Your task to perform on an android device: toggle improve location accuracy Image 0: 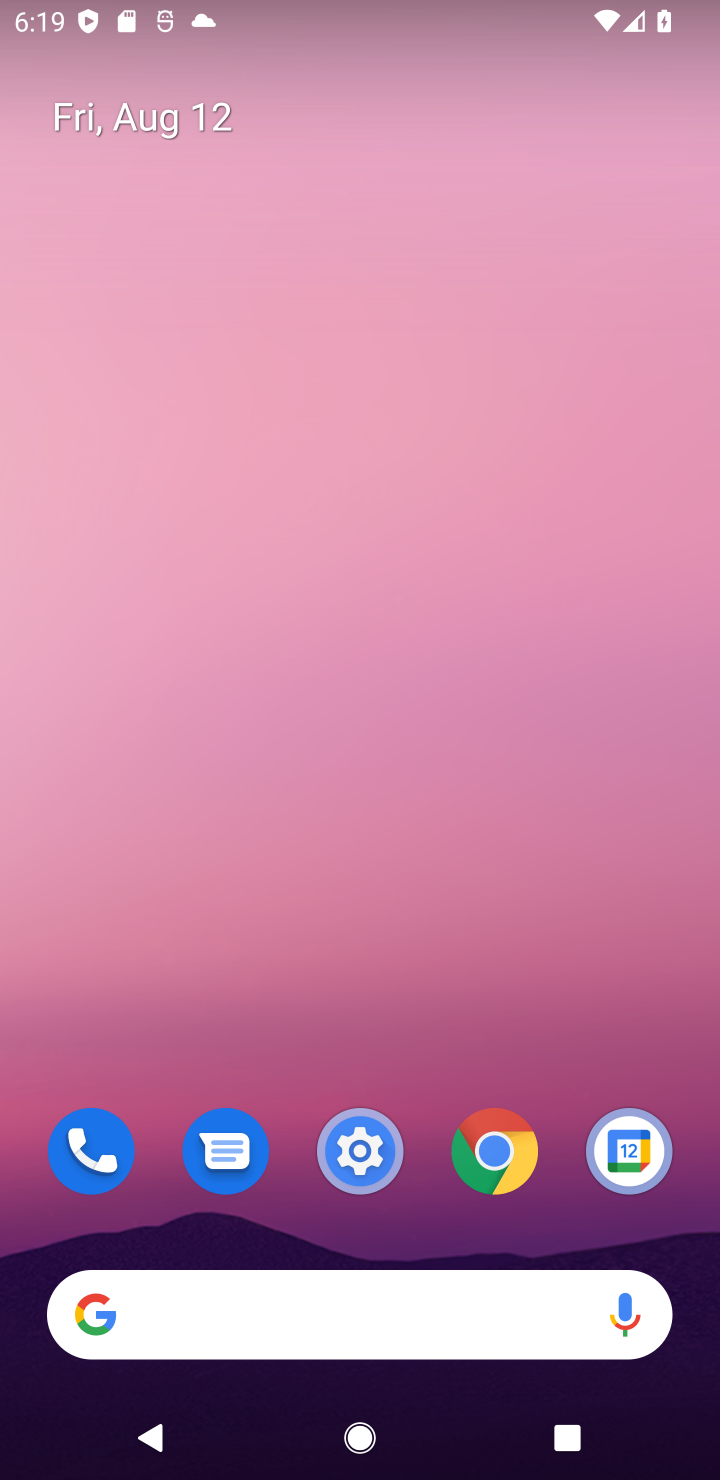
Step 0: drag from (542, 954) to (509, 87)
Your task to perform on an android device: toggle improve location accuracy Image 1: 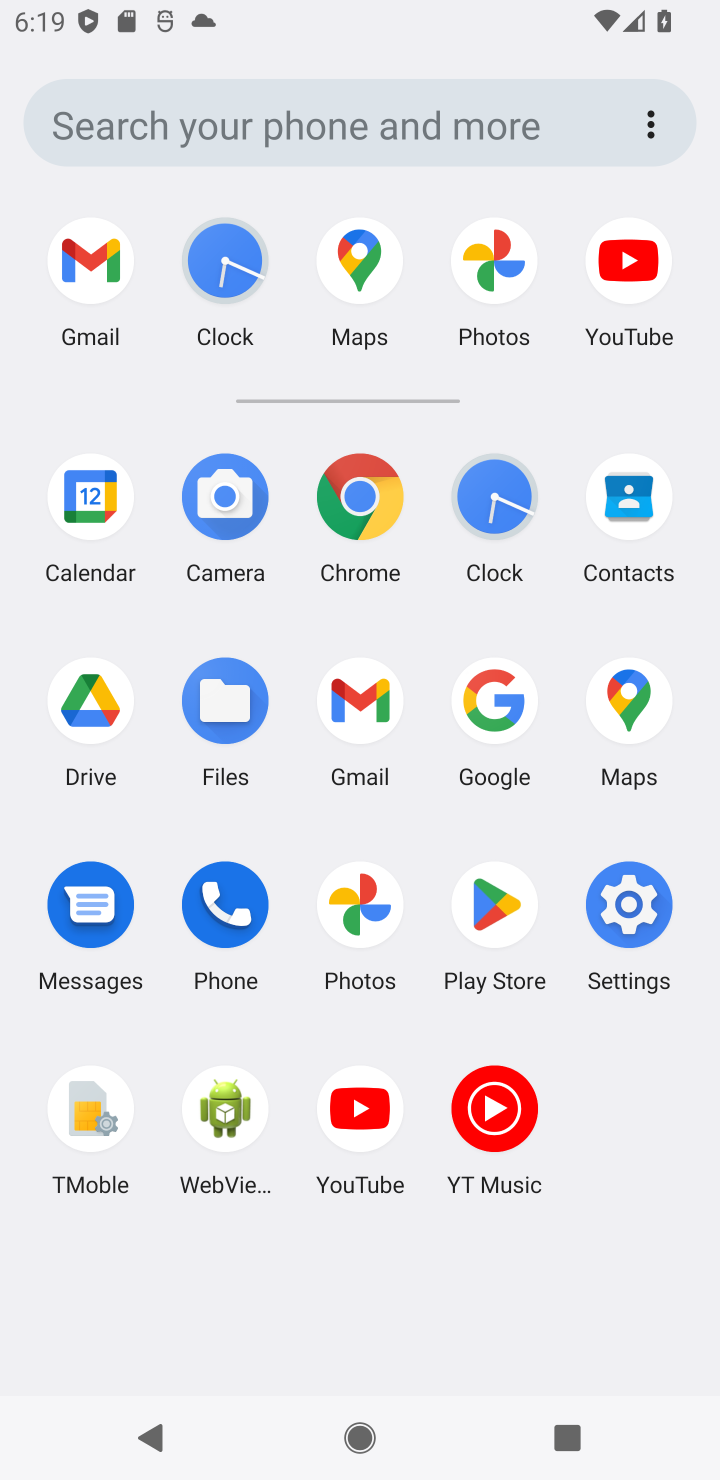
Step 1: click (622, 904)
Your task to perform on an android device: toggle improve location accuracy Image 2: 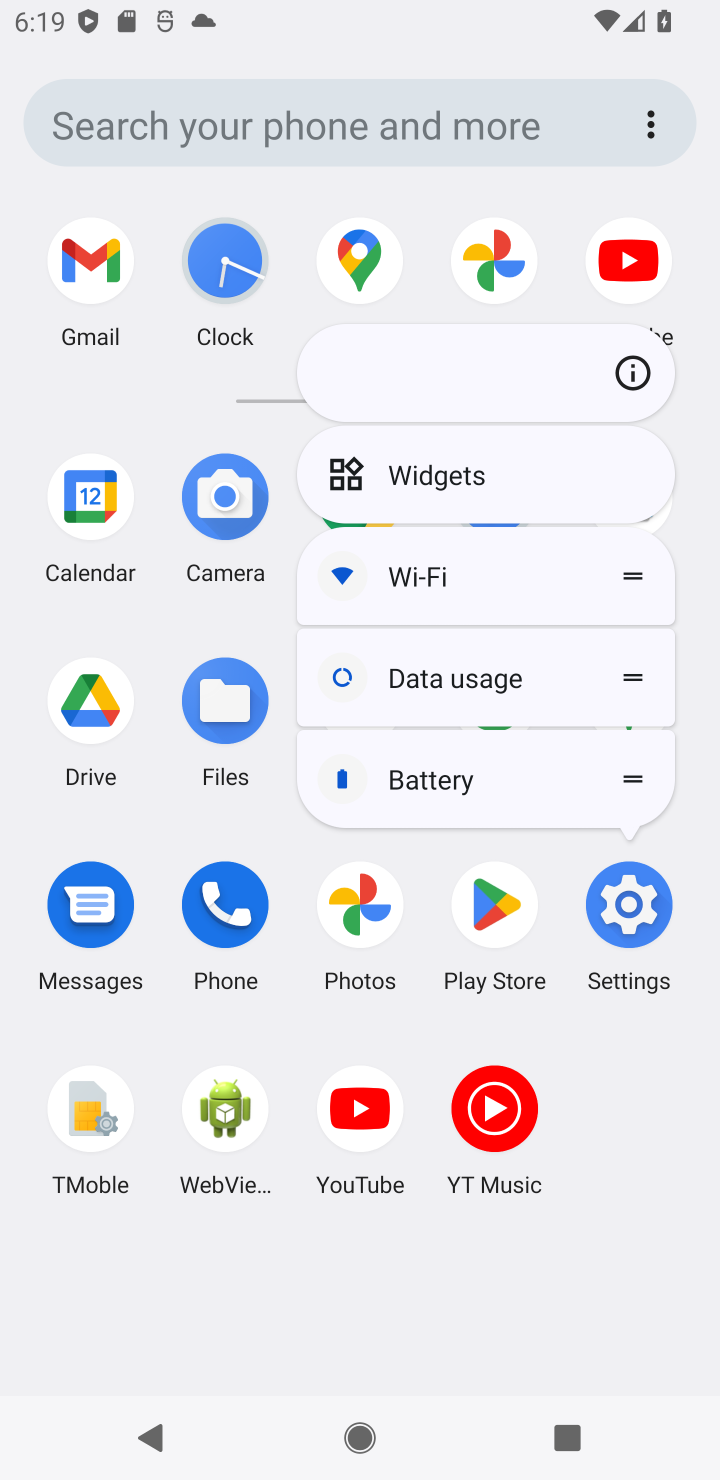
Step 2: click (637, 904)
Your task to perform on an android device: toggle improve location accuracy Image 3: 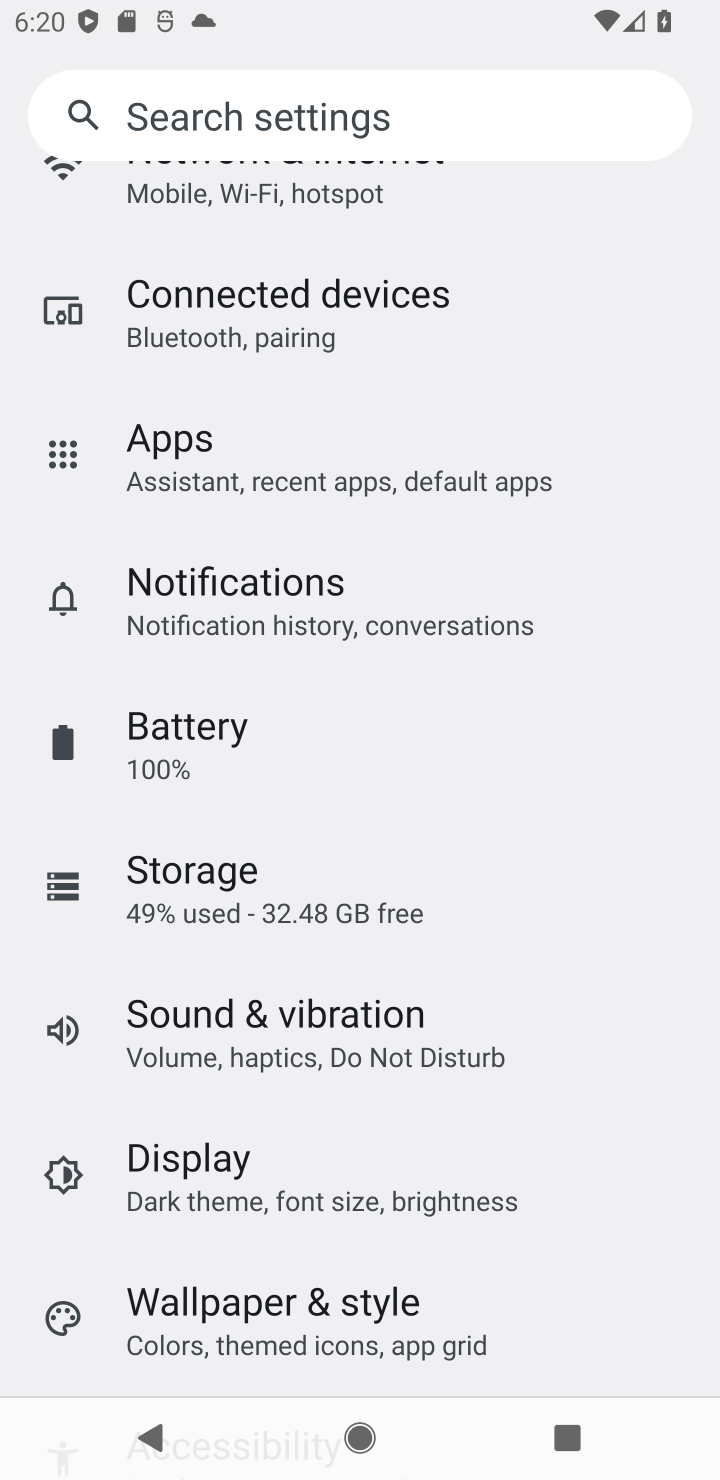
Step 3: drag from (580, 924) to (613, 312)
Your task to perform on an android device: toggle improve location accuracy Image 4: 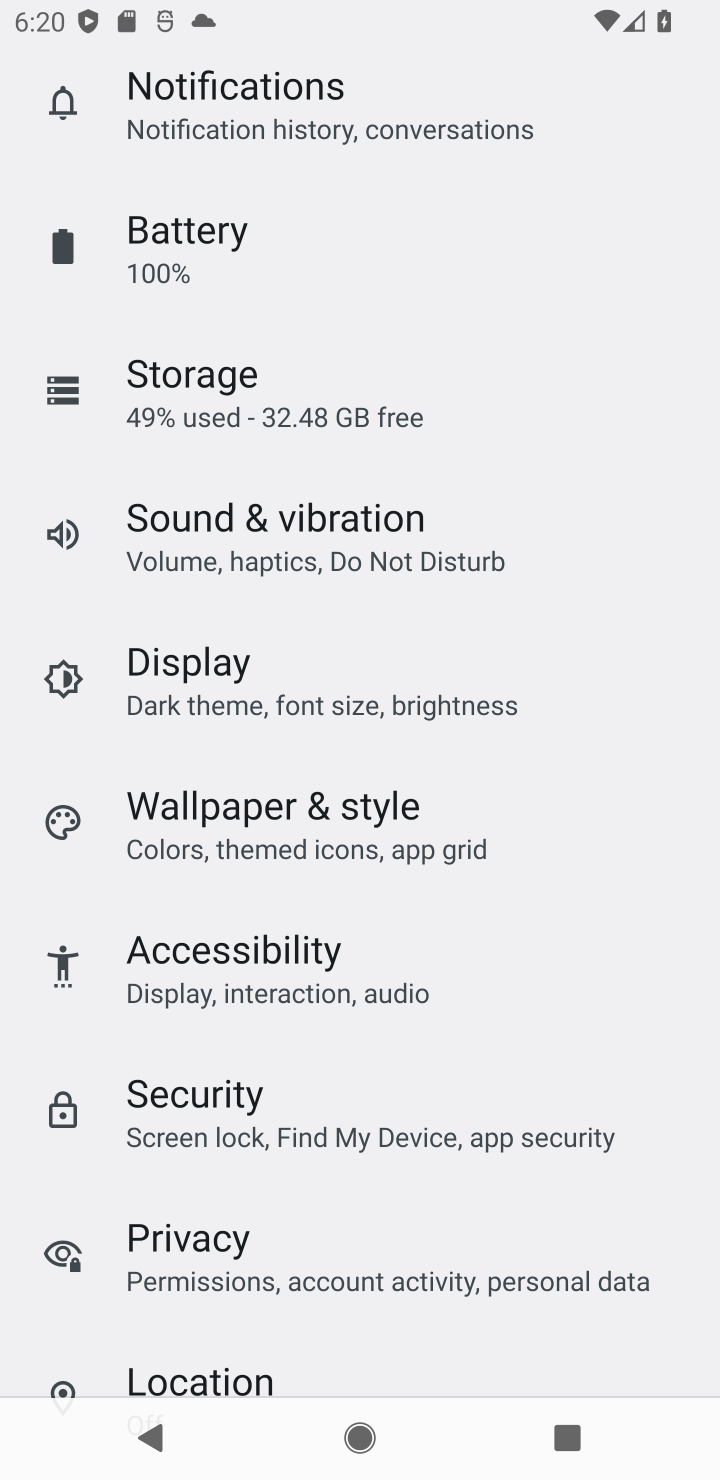
Step 4: click (243, 1376)
Your task to perform on an android device: toggle improve location accuracy Image 5: 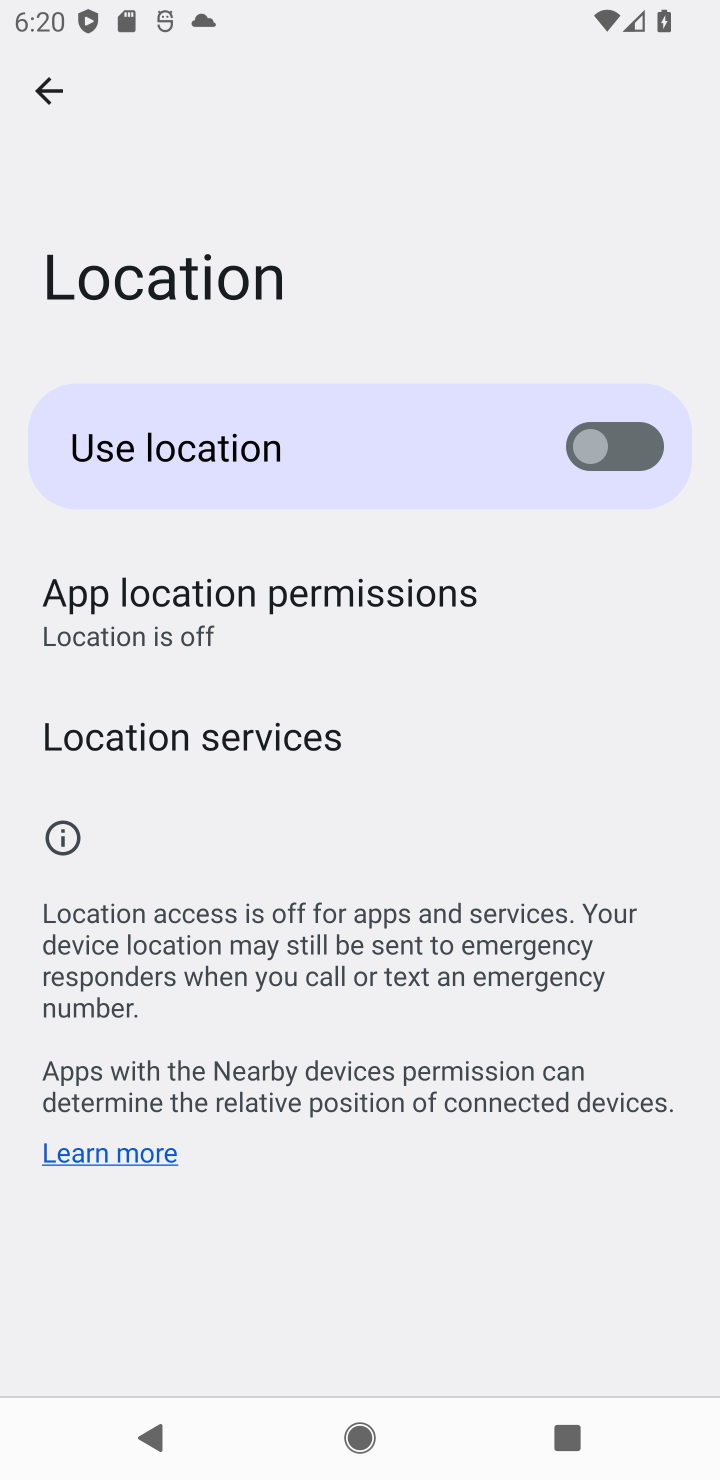
Step 5: click (311, 737)
Your task to perform on an android device: toggle improve location accuracy Image 6: 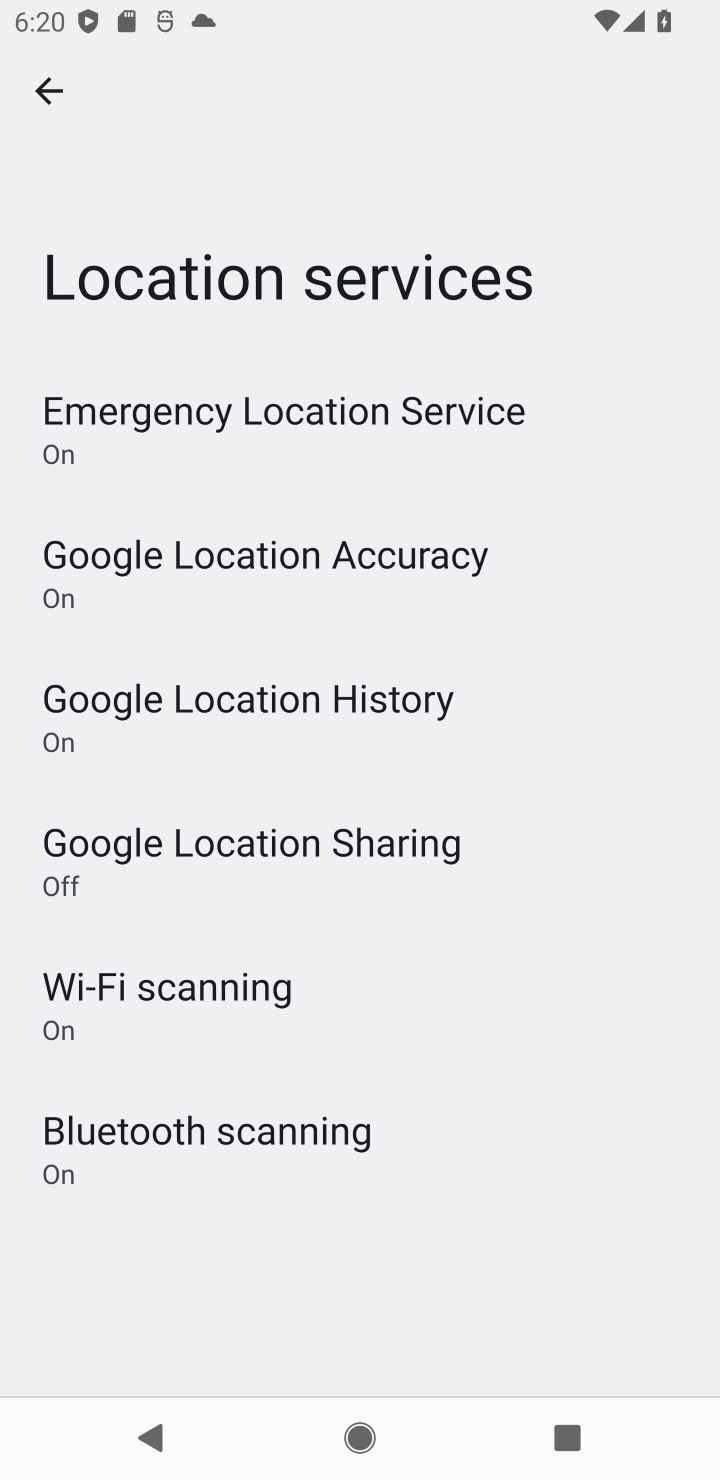
Step 6: click (426, 557)
Your task to perform on an android device: toggle improve location accuracy Image 7: 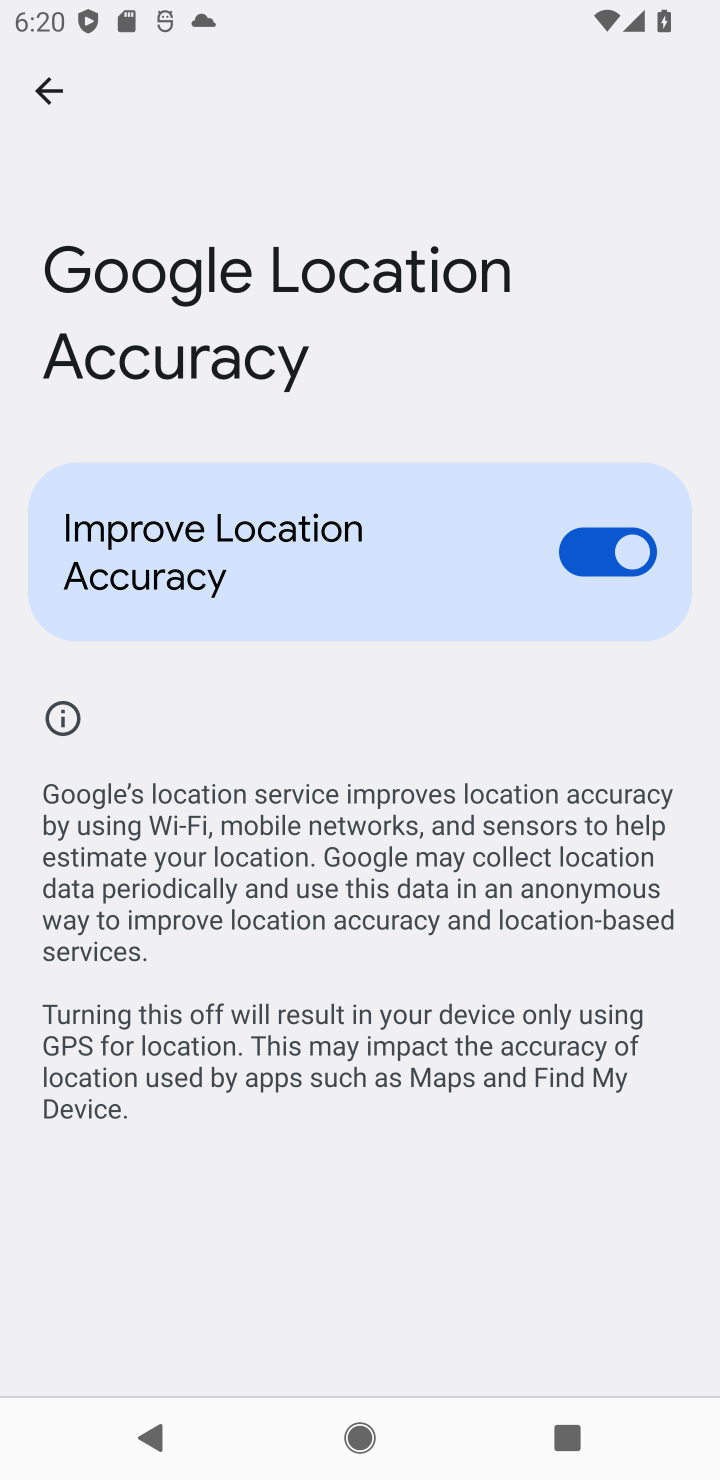
Step 7: click (617, 541)
Your task to perform on an android device: toggle improve location accuracy Image 8: 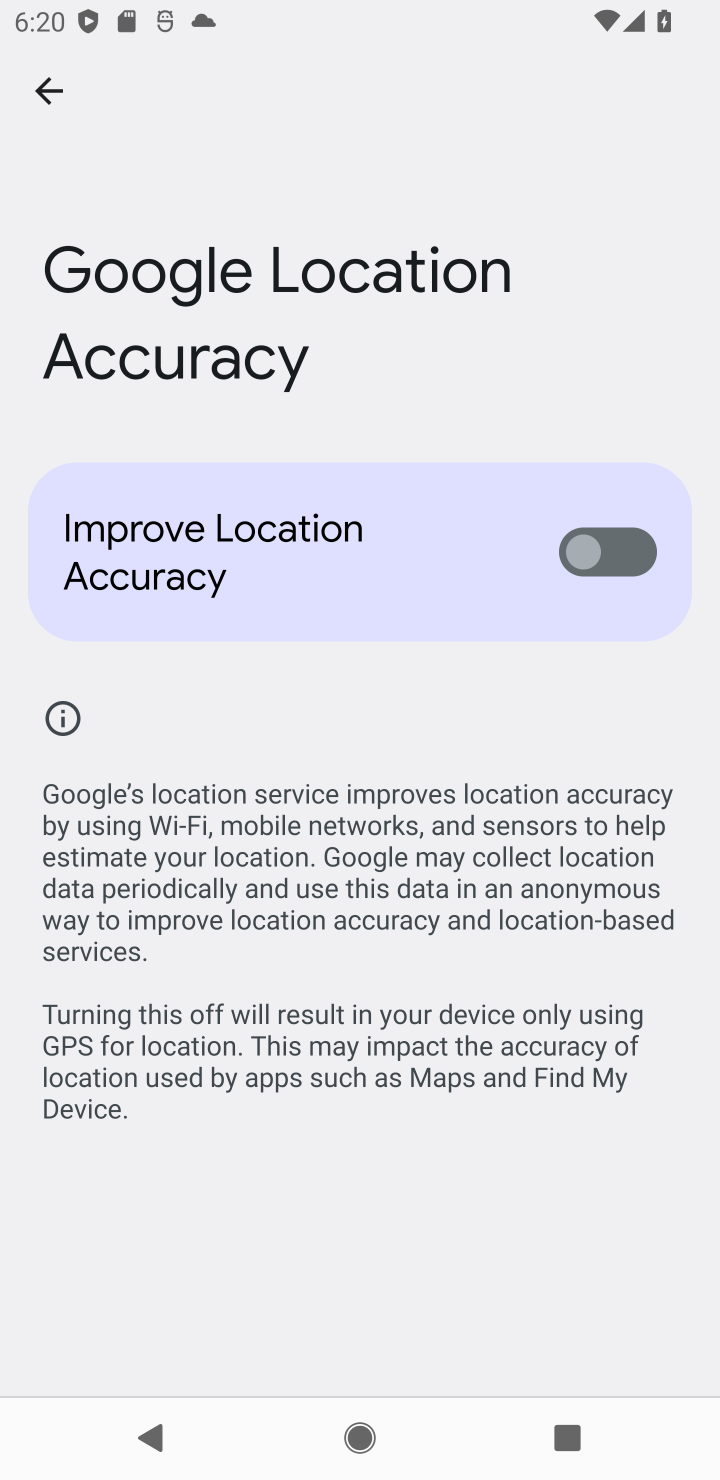
Step 8: task complete